Your task to perform on an android device: check google app version Image 0: 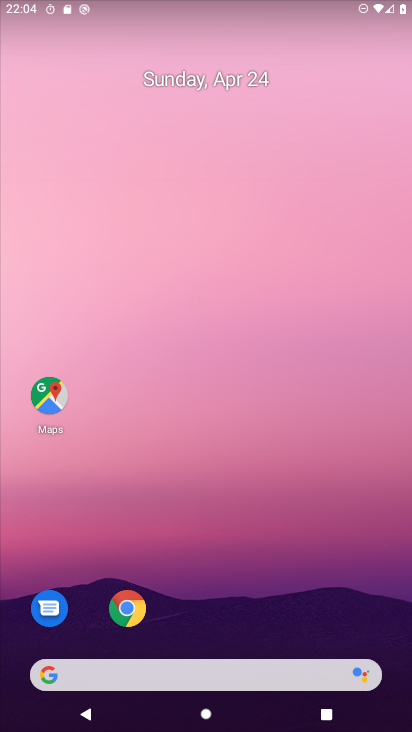
Step 0: drag from (250, 578) to (328, 1)
Your task to perform on an android device: check google app version Image 1: 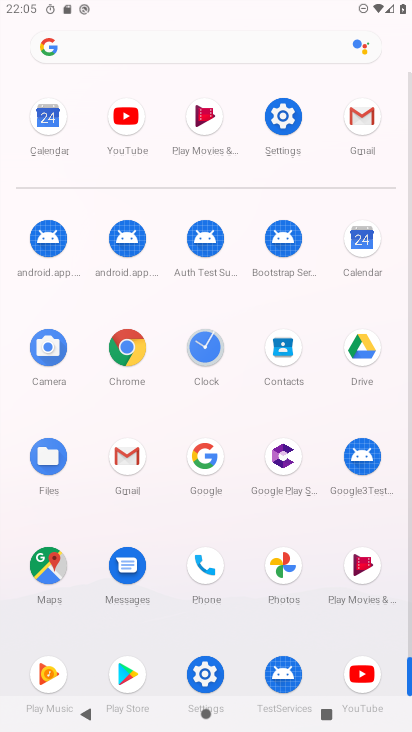
Step 1: click (207, 456)
Your task to perform on an android device: check google app version Image 2: 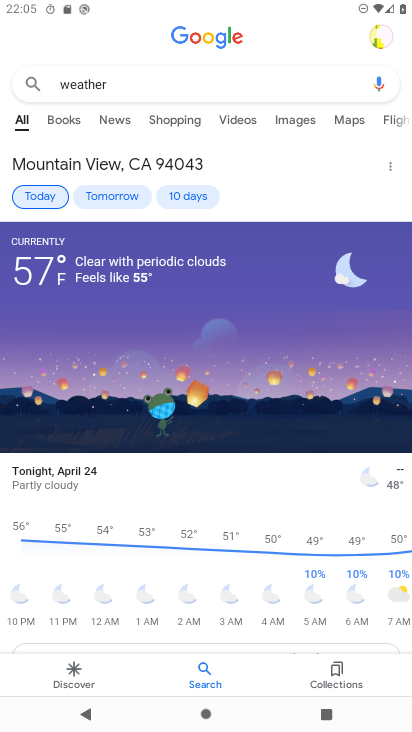
Step 2: click (380, 31)
Your task to perform on an android device: check google app version Image 3: 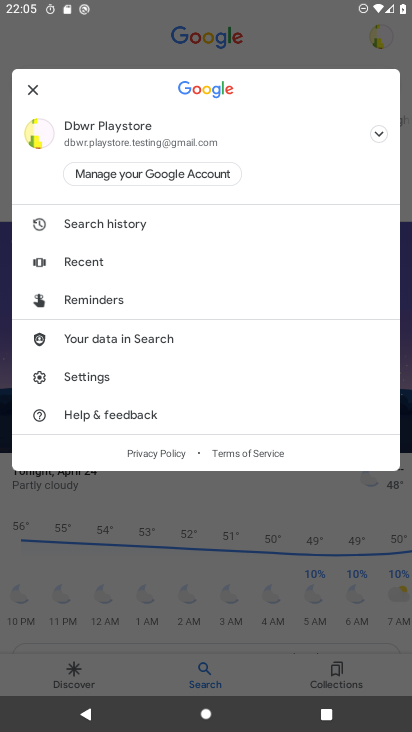
Step 3: click (99, 370)
Your task to perform on an android device: check google app version Image 4: 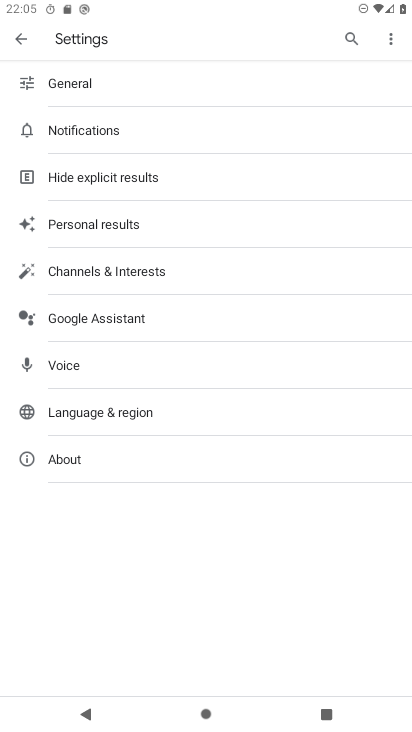
Step 4: click (74, 456)
Your task to perform on an android device: check google app version Image 5: 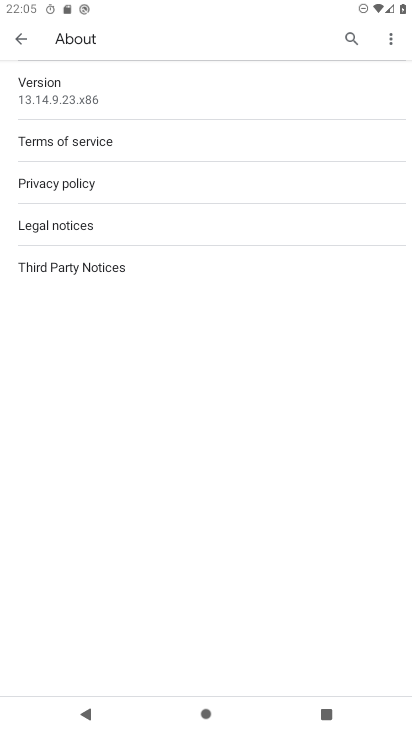
Step 5: task complete